Your task to perform on an android device: check storage Image 0: 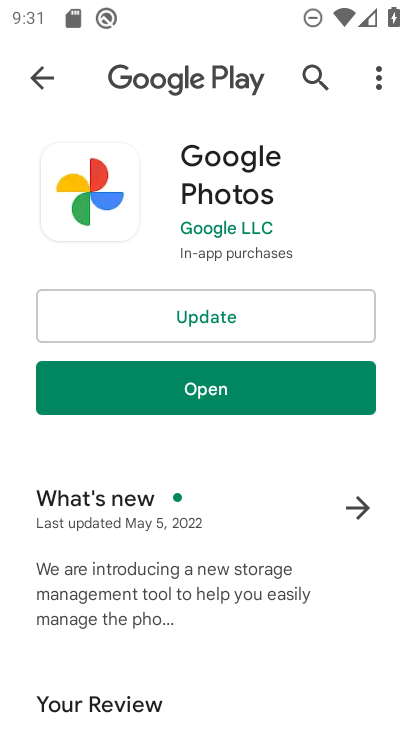
Step 0: press home button
Your task to perform on an android device: check storage Image 1: 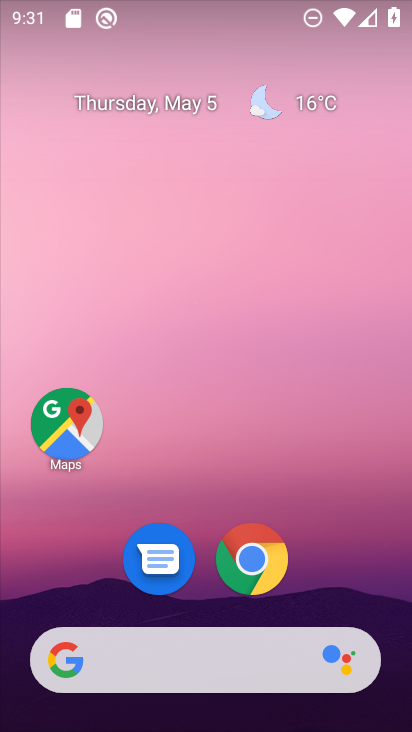
Step 1: drag from (366, 593) to (351, 66)
Your task to perform on an android device: check storage Image 2: 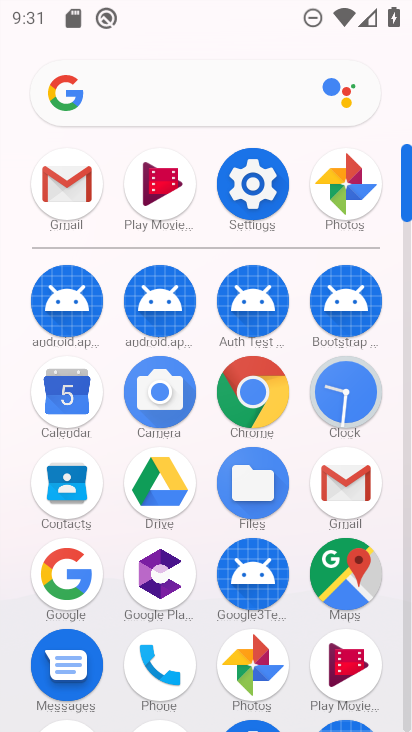
Step 2: click (251, 192)
Your task to perform on an android device: check storage Image 3: 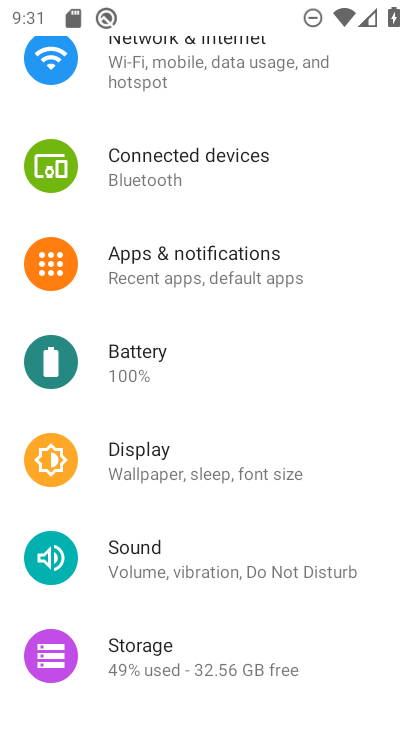
Step 3: click (139, 647)
Your task to perform on an android device: check storage Image 4: 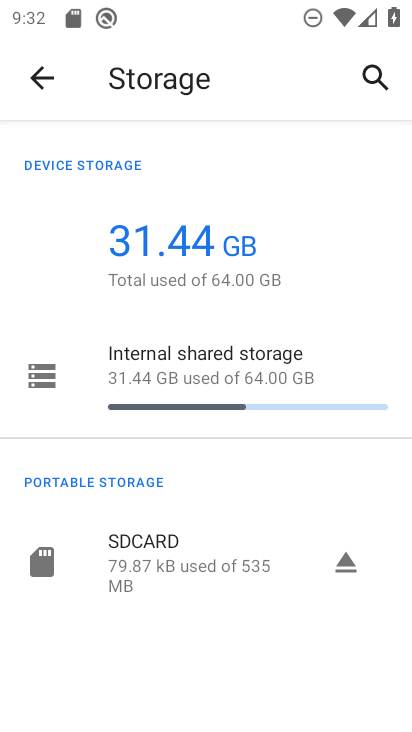
Step 4: click (177, 390)
Your task to perform on an android device: check storage Image 5: 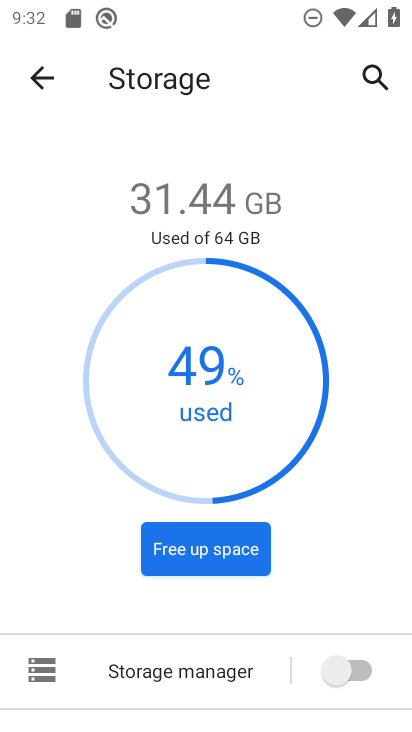
Step 5: task complete